Your task to perform on an android device: see sites visited before in the chrome app Image 0: 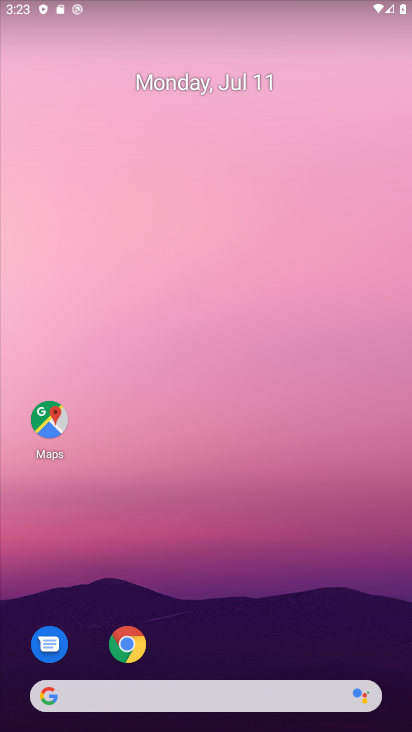
Step 0: click (132, 643)
Your task to perform on an android device: see sites visited before in the chrome app Image 1: 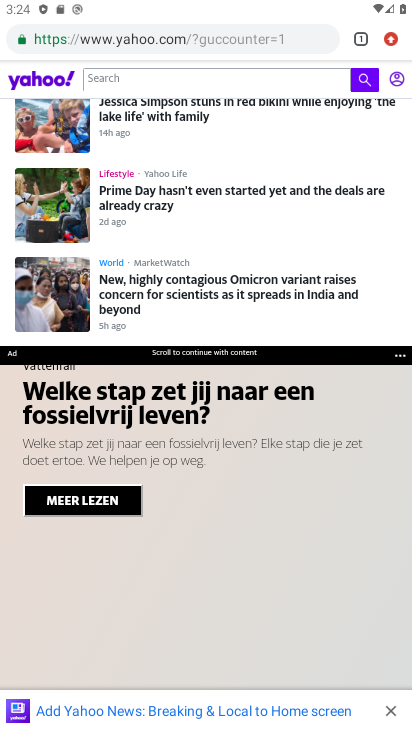
Step 1: click (393, 32)
Your task to perform on an android device: see sites visited before in the chrome app Image 2: 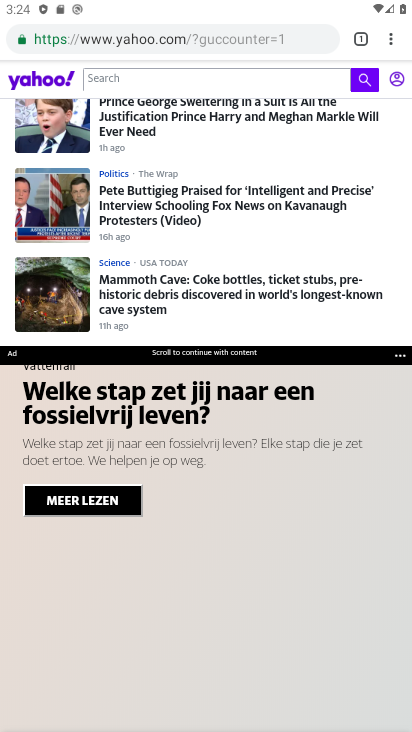
Step 2: click (388, 38)
Your task to perform on an android device: see sites visited before in the chrome app Image 3: 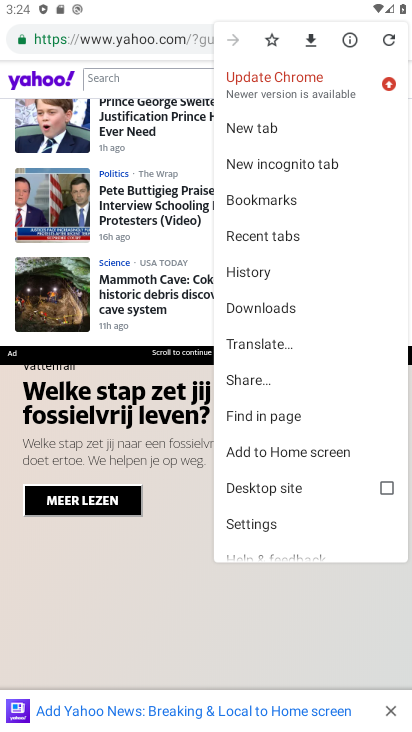
Step 3: click (280, 518)
Your task to perform on an android device: see sites visited before in the chrome app Image 4: 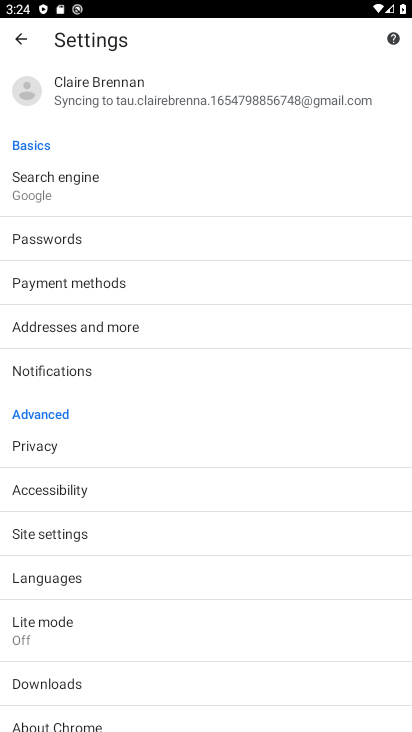
Step 4: click (21, 36)
Your task to perform on an android device: see sites visited before in the chrome app Image 5: 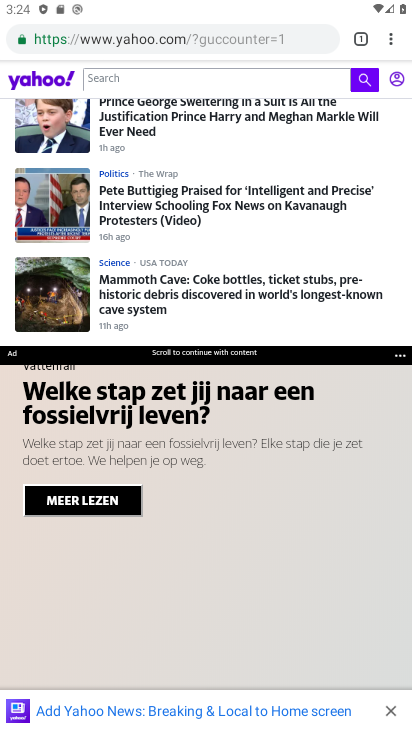
Step 5: click (394, 40)
Your task to perform on an android device: see sites visited before in the chrome app Image 6: 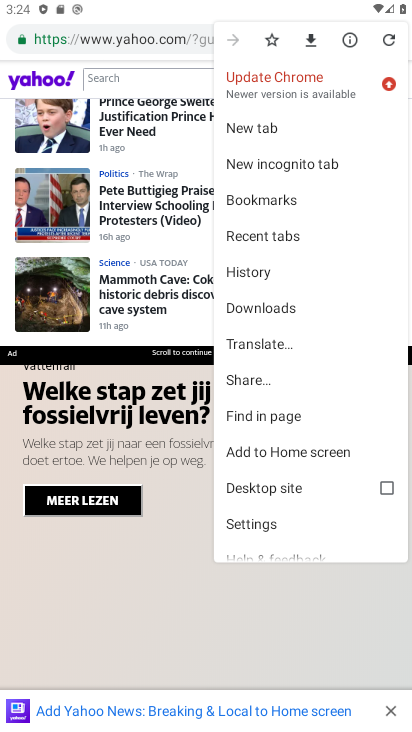
Step 6: click (299, 237)
Your task to perform on an android device: see sites visited before in the chrome app Image 7: 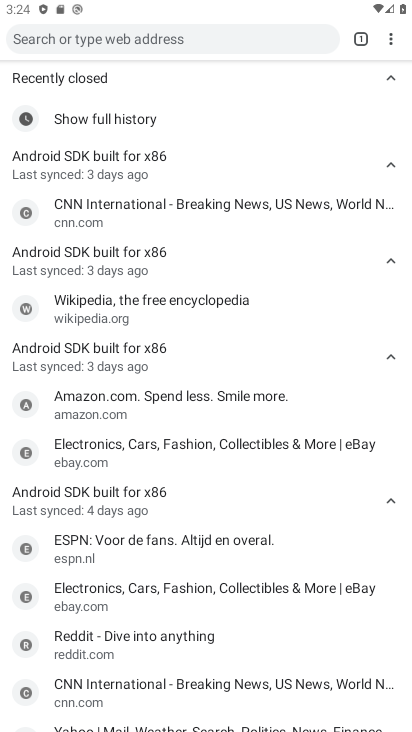
Step 7: task complete